Your task to perform on an android device: change the clock style Image 0: 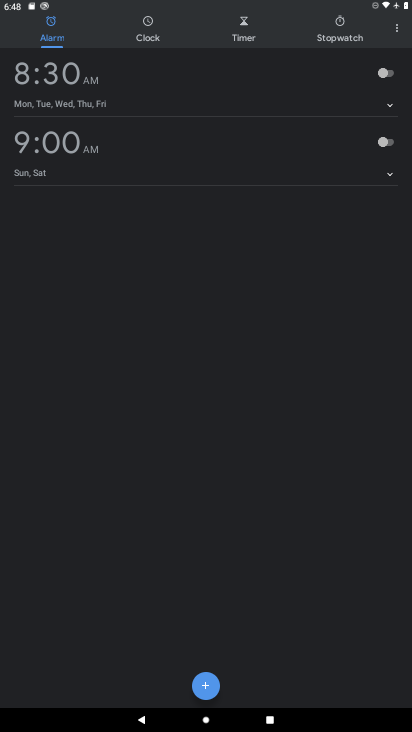
Step 0: press home button
Your task to perform on an android device: change the clock style Image 1: 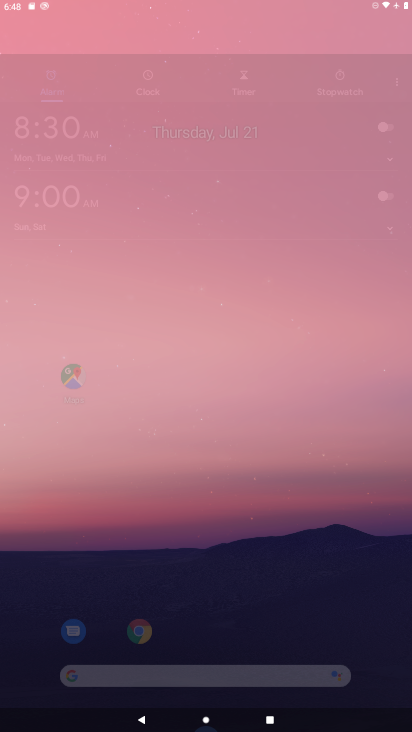
Step 1: drag from (379, 671) to (227, 5)
Your task to perform on an android device: change the clock style Image 2: 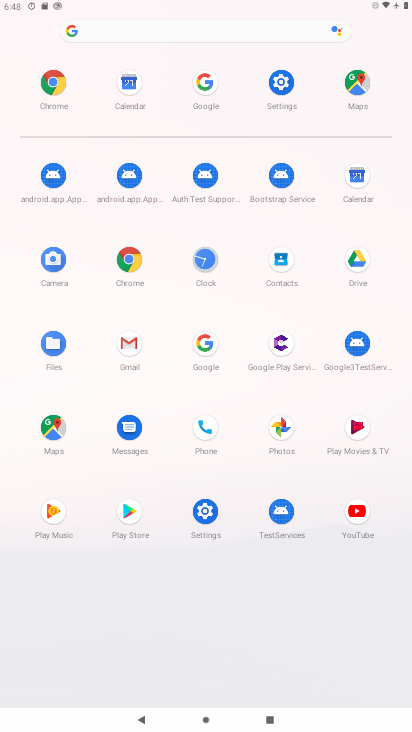
Step 2: click (198, 255)
Your task to perform on an android device: change the clock style Image 3: 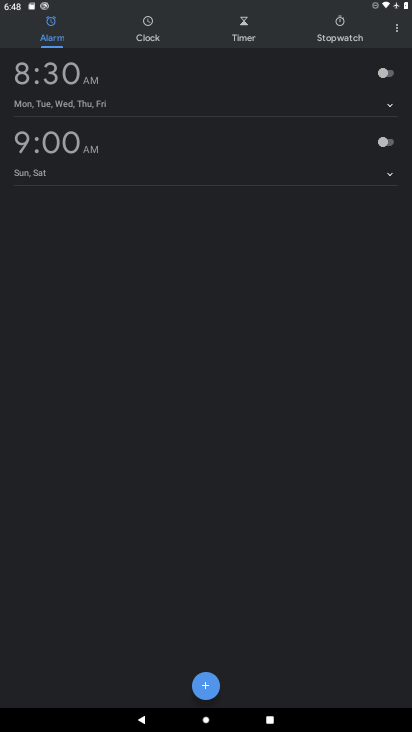
Step 3: click (398, 22)
Your task to perform on an android device: change the clock style Image 4: 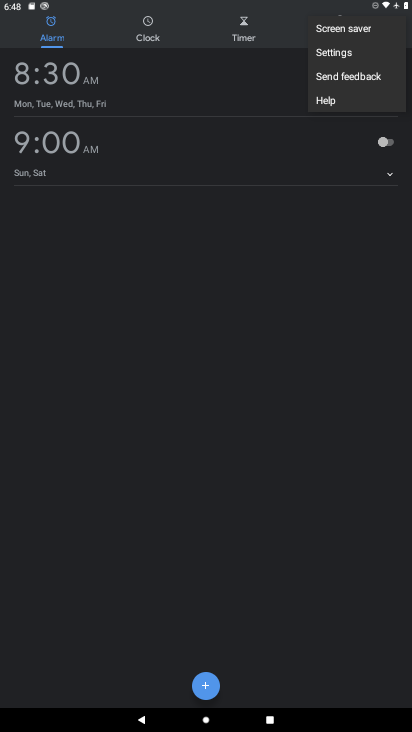
Step 4: click (340, 52)
Your task to perform on an android device: change the clock style Image 5: 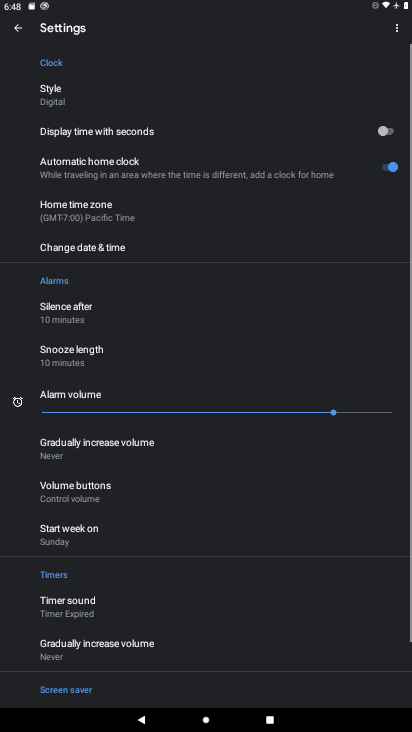
Step 5: click (61, 105)
Your task to perform on an android device: change the clock style Image 6: 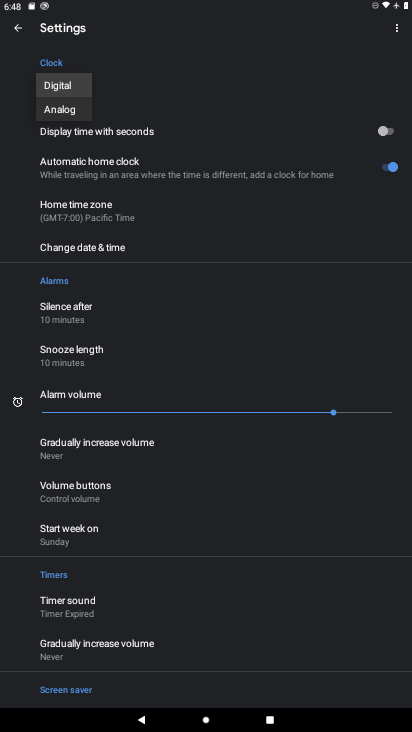
Step 6: click (73, 114)
Your task to perform on an android device: change the clock style Image 7: 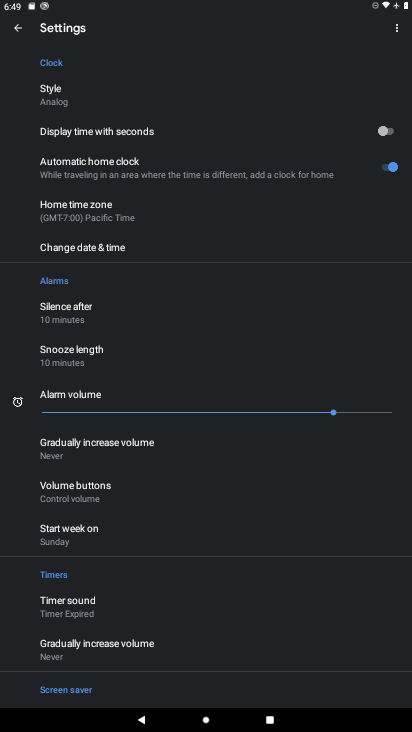
Step 7: task complete